Your task to perform on an android device: Show me popular videos on Youtube Image 0: 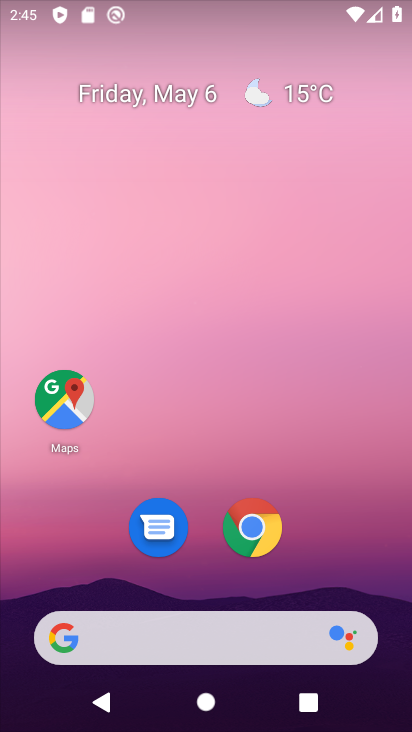
Step 0: drag from (298, 557) to (372, 61)
Your task to perform on an android device: Show me popular videos on Youtube Image 1: 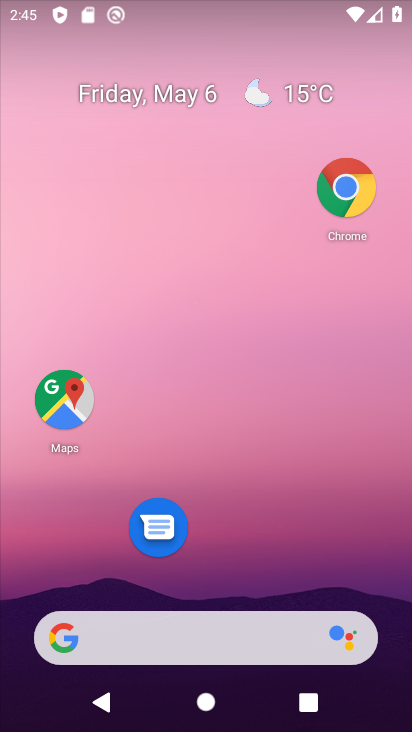
Step 1: drag from (322, 560) to (236, 96)
Your task to perform on an android device: Show me popular videos on Youtube Image 2: 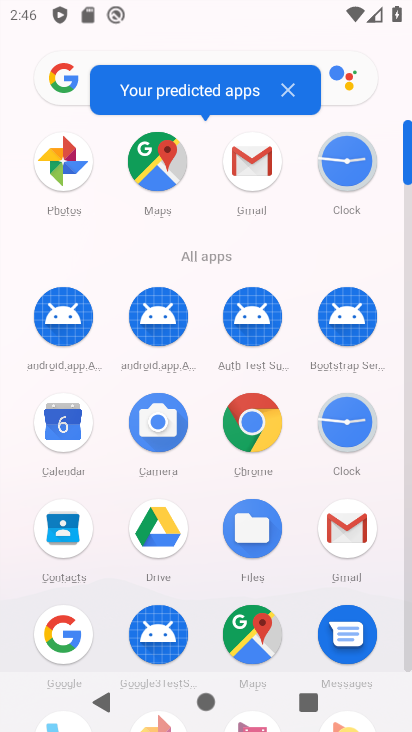
Step 2: drag from (294, 635) to (301, 180)
Your task to perform on an android device: Show me popular videos on Youtube Image 3: 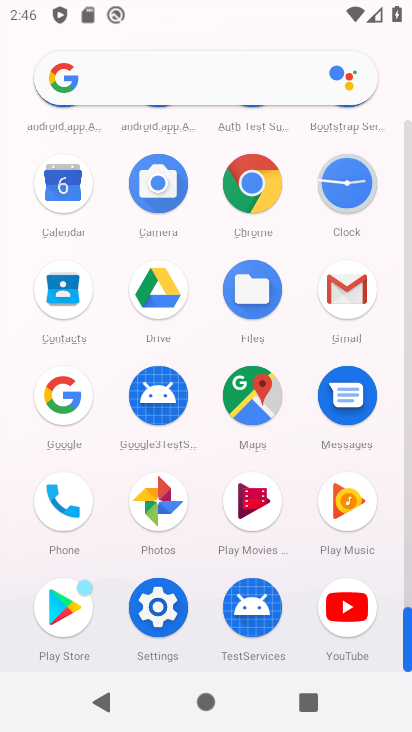
Step 3: click (345, 604)
Your task to perform on an android device: Show me popular videos on Youtube Image 4: 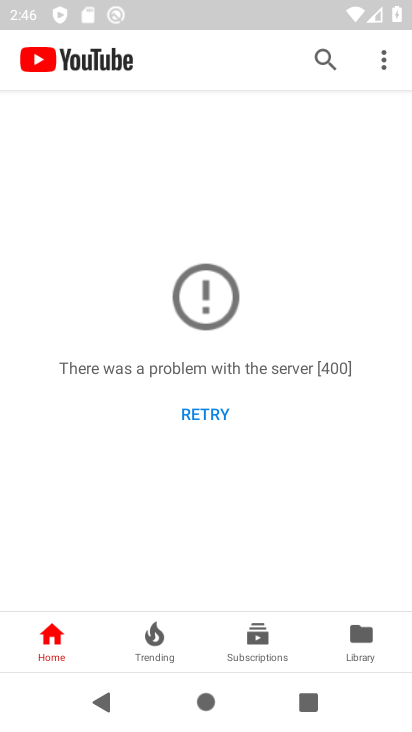
Step 4: click (217, 414)
Your task to perform on an android device: Show me popular videos on Youtube Image 5: 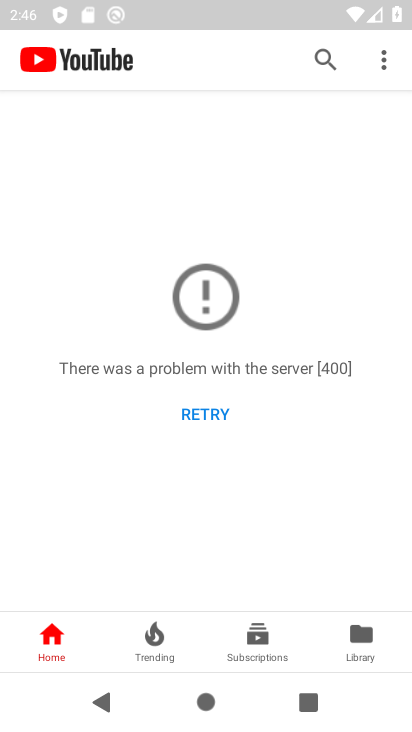
Step 5: click (217, 414)
Your task to perform on an android device: Show me popular videos on Youtube Image 6: 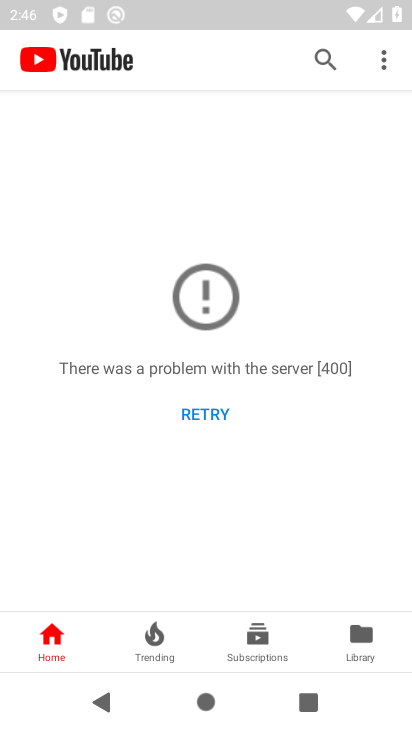
Step 6: task complete